Your task to perform on an android device: Open the map Image 0: 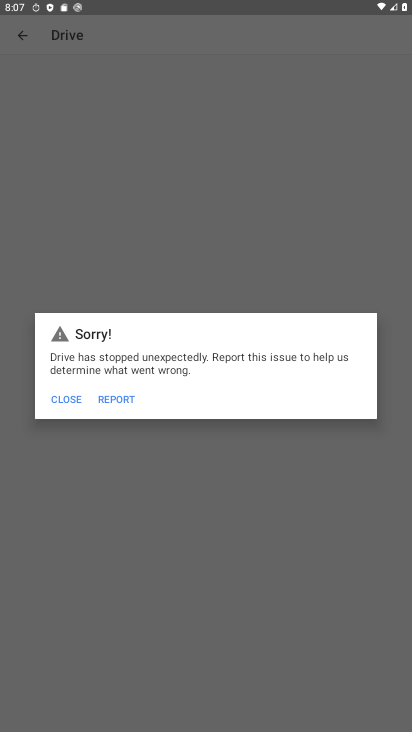
Step 0: click (72, 397)
Your task to perform on an android device: Open the map Image 1: 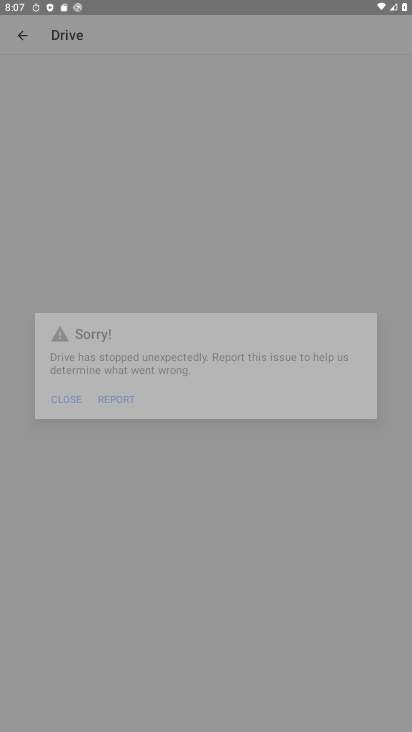
Step 1: click (72, 397)
Your task to perform on an android device: Open the map Image 2: 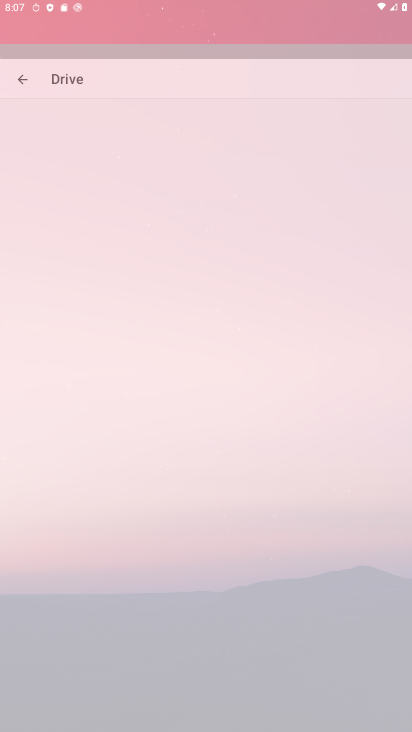
Step 2: click (70, 400)
Your task to perform on an android device: Open the map Image 3: 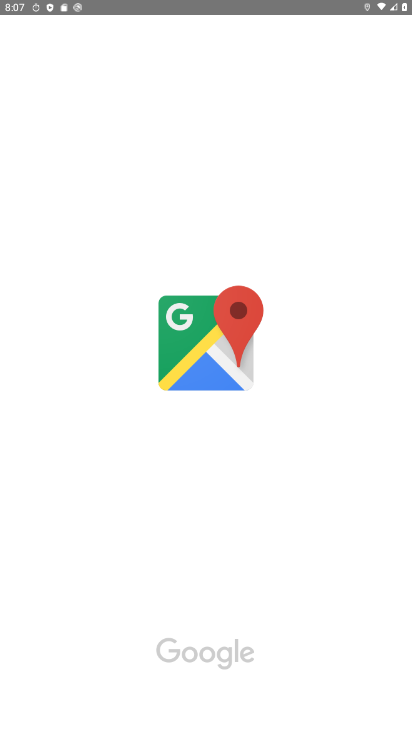
Step 3: task complete